Your task to perform on an android device: Add dell alienware to the cart on bestbuy, then select checkout. Image 0: 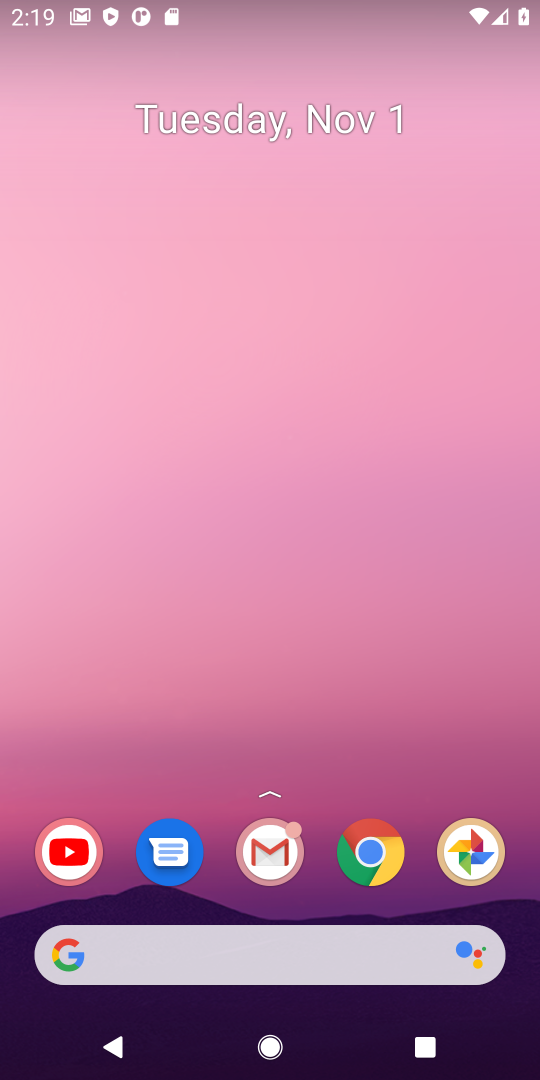
Step 0: click (212, 979)
Your task to perform on an android device: Add dell alienware to the cart on bestbuy, then select checkout. Image 1: 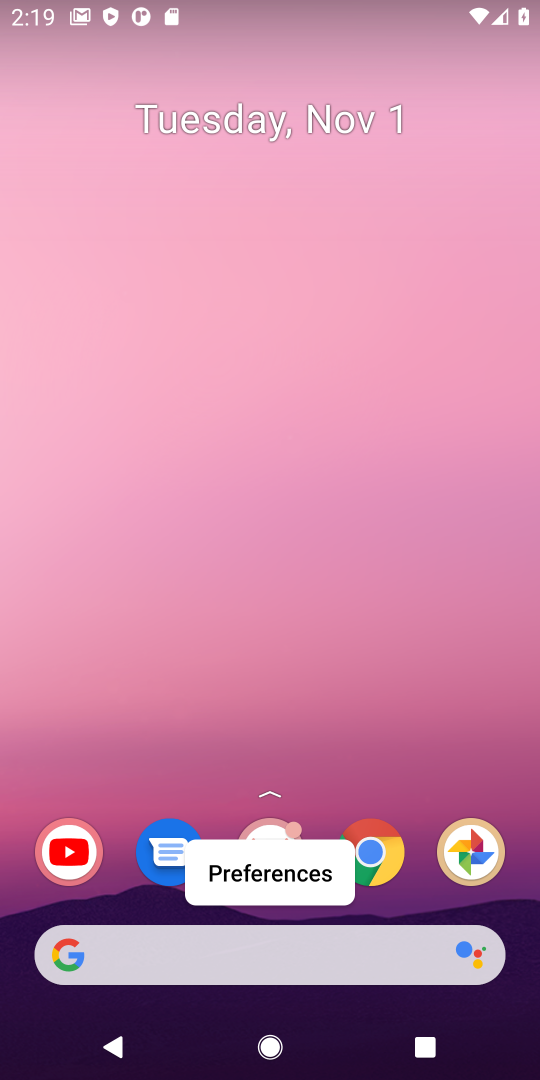
Step 1: click (215, 972)
Your task to perform on an android device: Add dell alienware to the cart on bestbuy, then select checkout. Image 2: 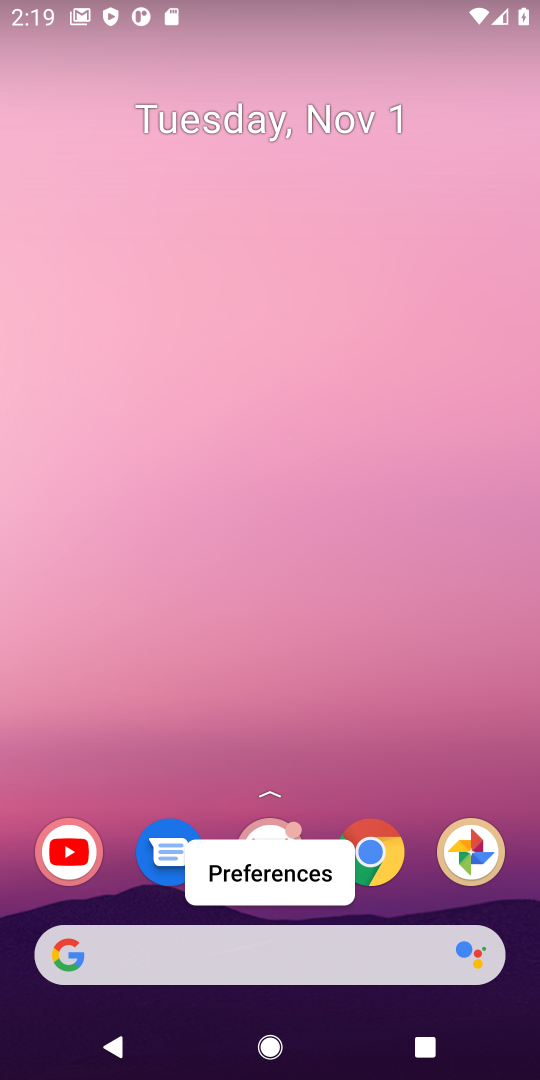
Step 2: click (212, 964)
Your task to perform on an android device: Add dell alienware to the cart on bestbuy, then select checkout. Image 3: 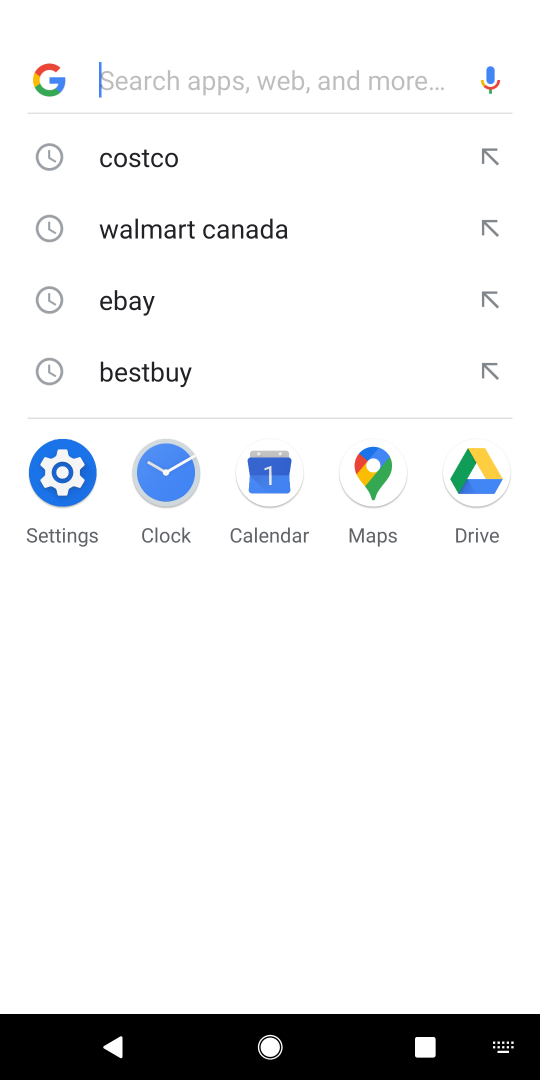
Step 3: type "bestbuy"
Your task to perform on an android device: Add dell alienware to the cart on bestbuy, then select checkout. Image 4: 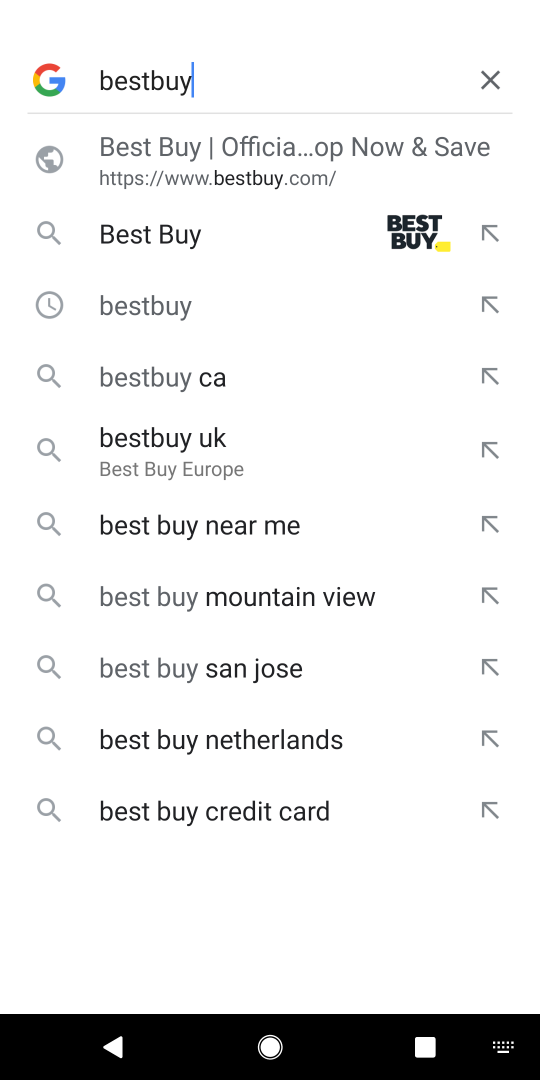
Step 4: type ""
Your task to perform on an android device: Add dell alienware to the cart on bestbuy, then select checkout. Image 5: 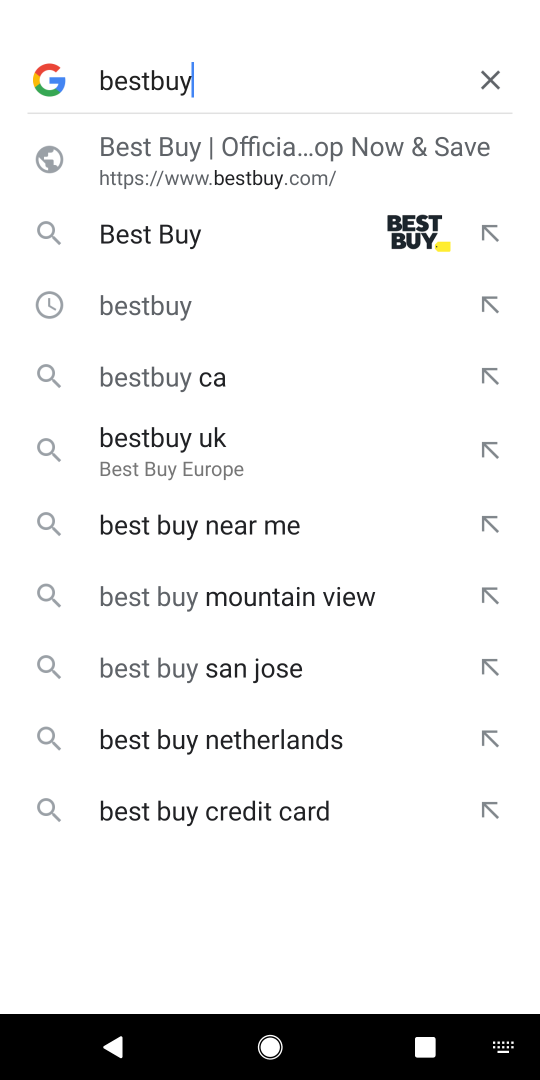
Step 5: click (179, 163)
Your task to perform on an android device: Add dell alienware to the cart on bestbuy, then select checkout. Image 6: 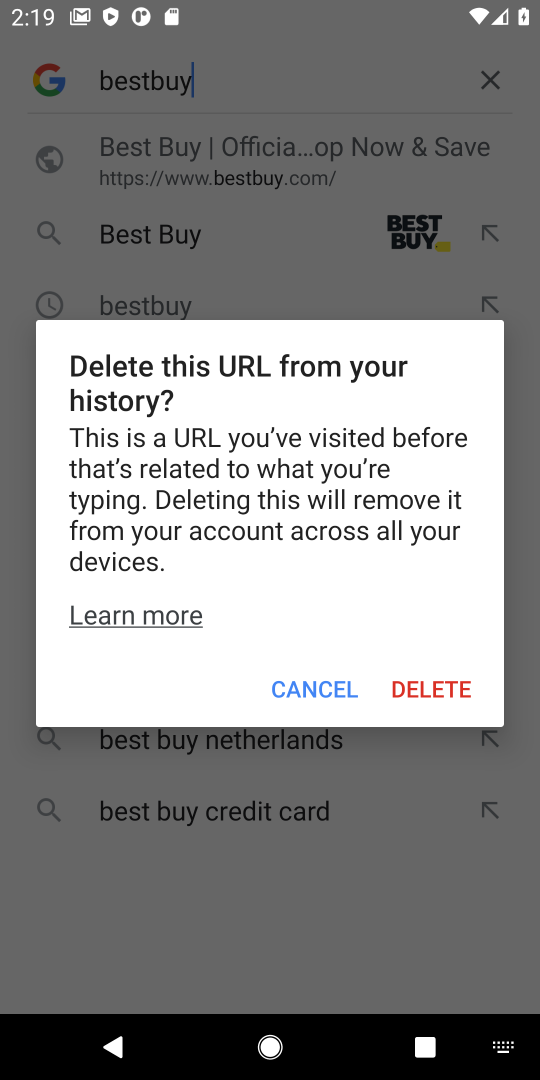
Step 6: click (385, 838)
Your task to perform on an android device: Add dell alienware to the cart on bestbuy, then select checkout. Image 7: 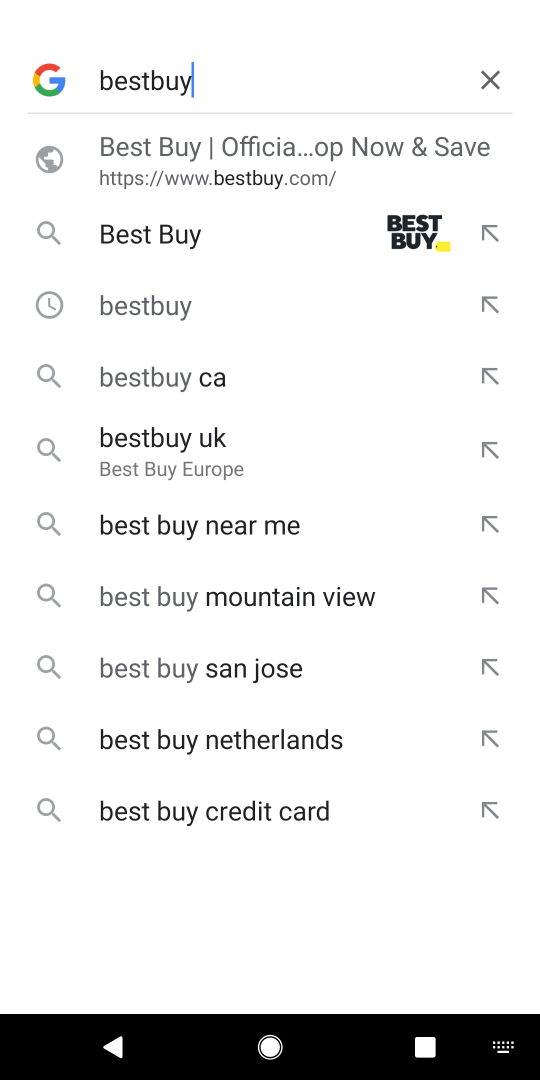
Step 7: click (341, 701)
Your task to perform on an android device: Add dell alienware to the cart on bestbuy, then select checkout. Image 8: 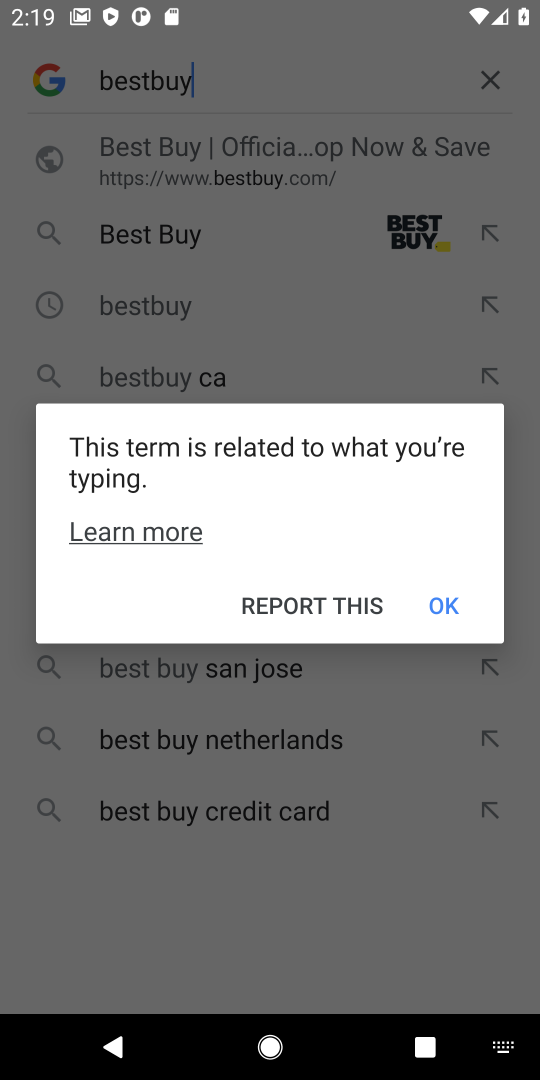
Step 8: click (238, 184)
Your task to perform on an android device: Add dell alienware to the cart on bestbuy, then select checkout. Image 9: 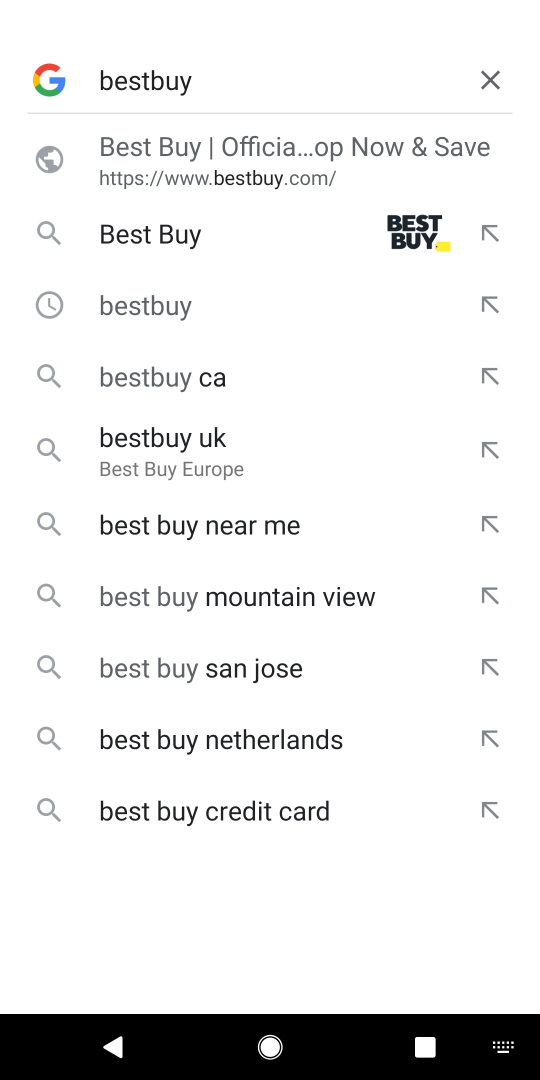
Step 9: click (291, 615)
Your task to perform on an android device: Add dell alienware to the cart on bestbuy, then select checkout. Image 10: 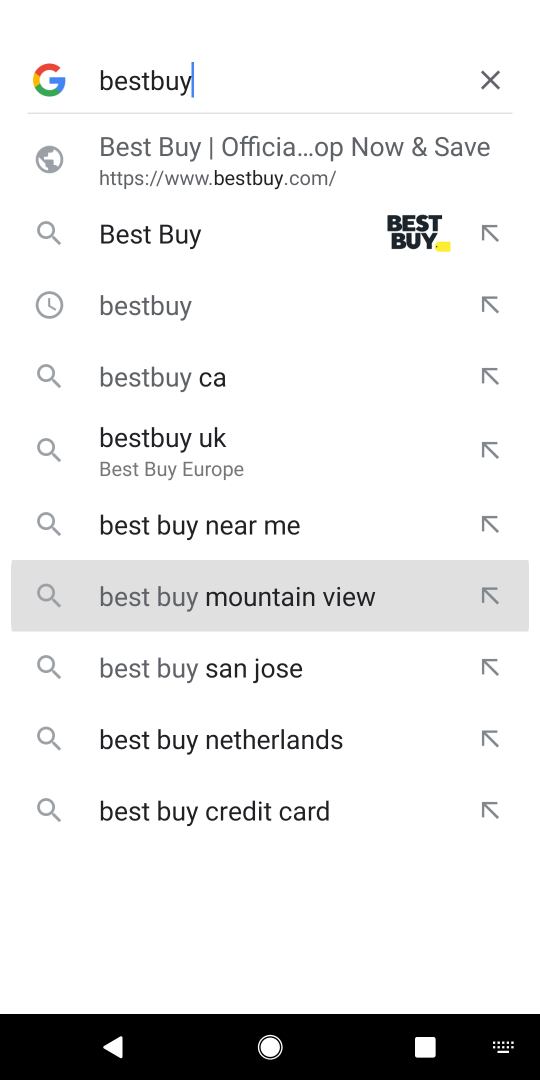
Step 10: click (247, 175)
Your task to perform on an android device: Add dell alienware to the cart on bestbuy, then select checkout. Image 11: 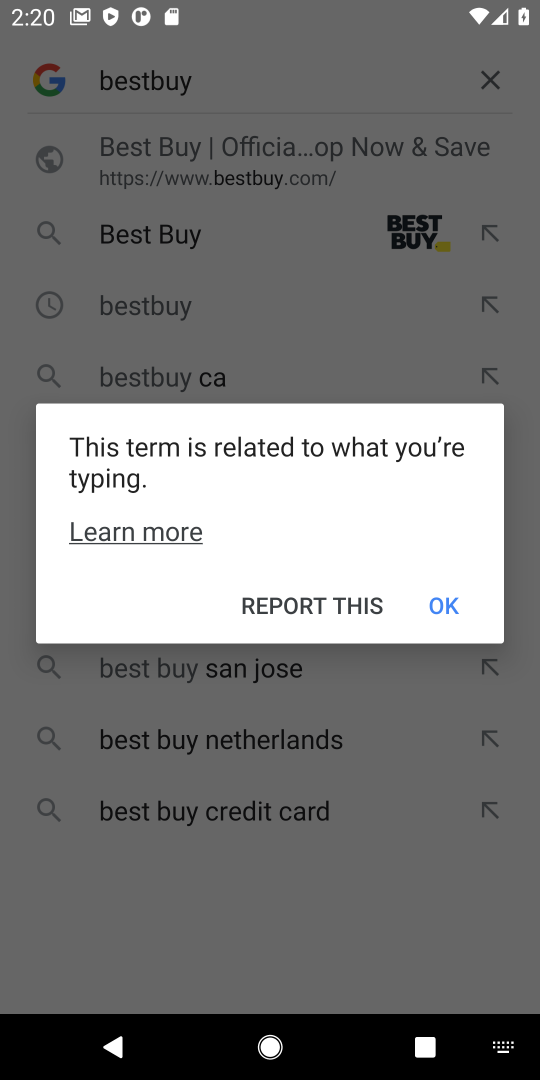
Step 11: click (247, 175)
Your task to perform on an android device: Add dell alienware to the cart on bestbuy, then select checkout. Image 12: 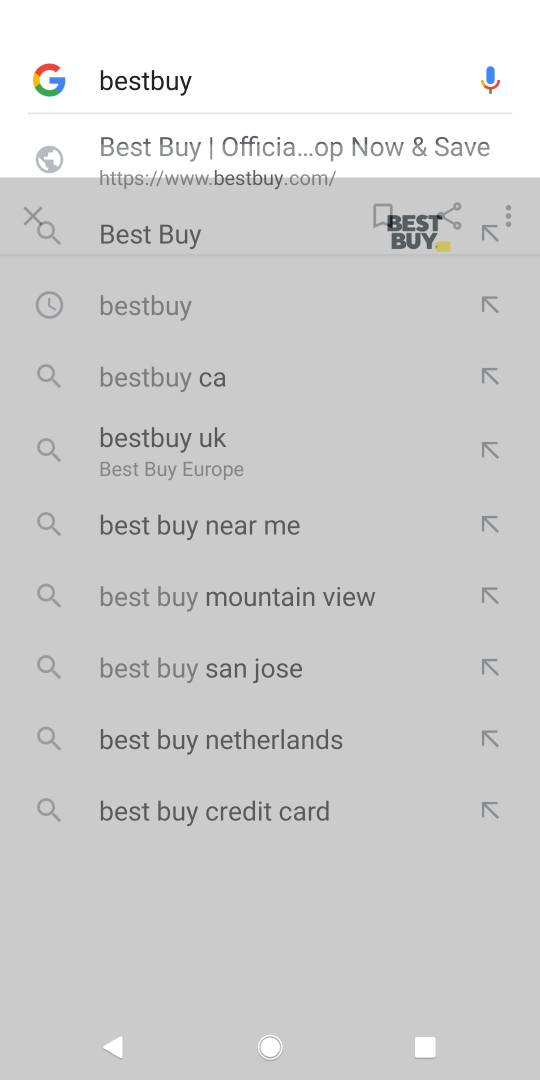
Step 12: click (331, 614)
Your task to perform on an android device: Add dell alienware to the cart on bestbuy, then select checkout. Image 13: 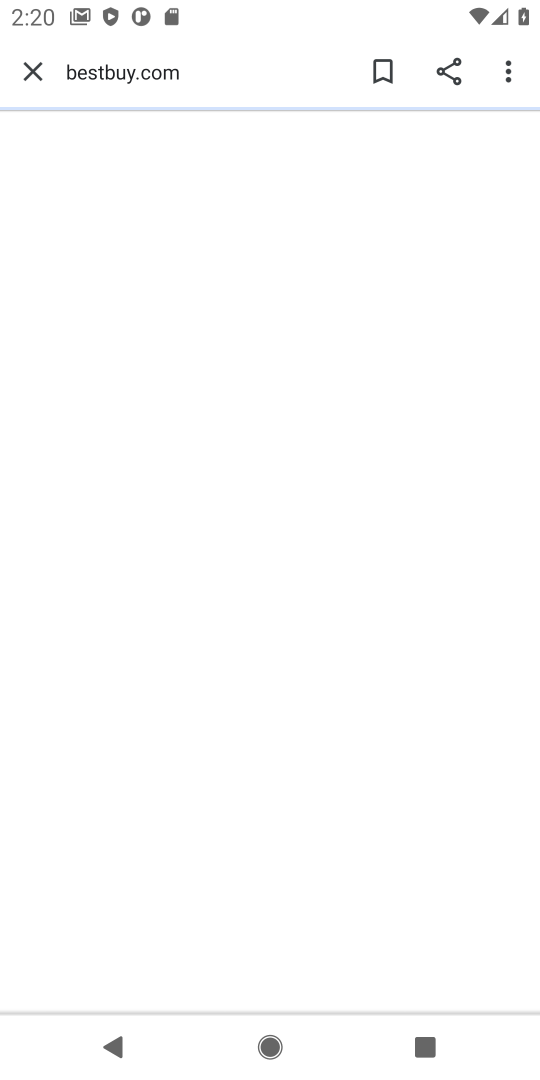
Step 13: click (320, 192)
Your task to perform on an android device: Add dell alienware to the cart on bestbuy, then select checkout. Image 14: 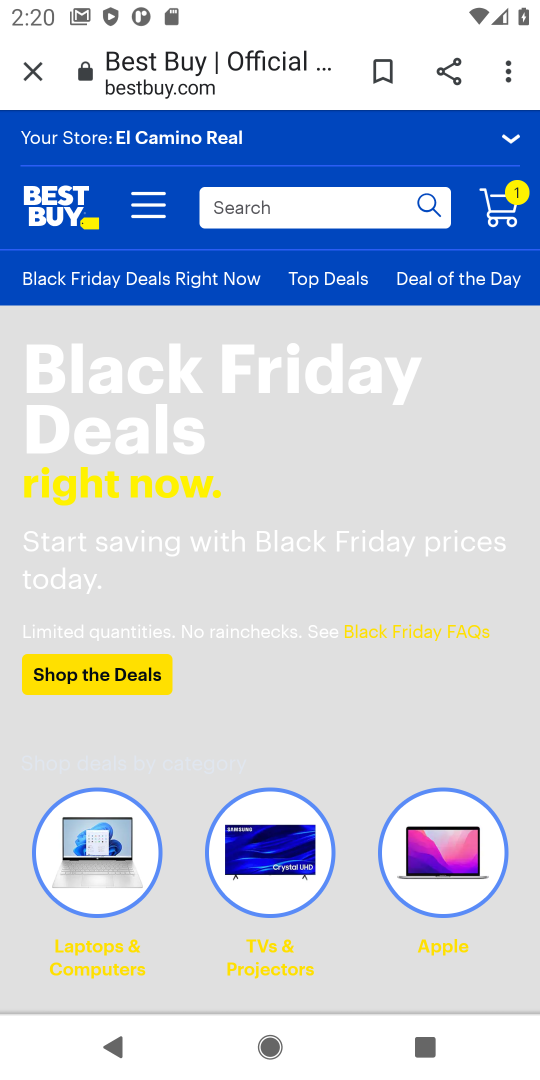
Step 14: click (271, 216)
Your task to perform on an android device: Add dell alienware to the cart on bestbuy, then select checkout. Image 15: 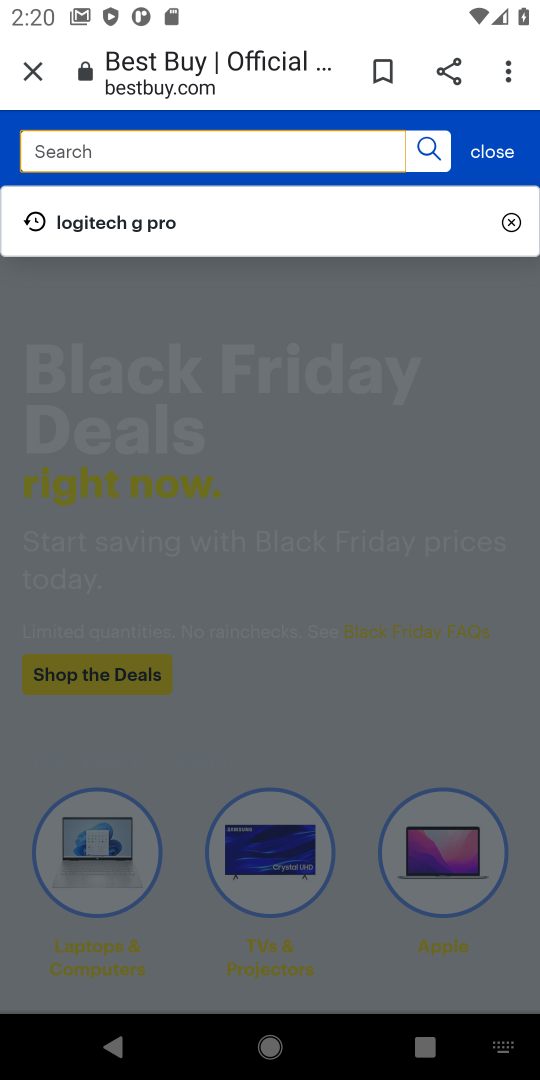
Step 15: click (285, 725)
Your task to perform on an android device: Add dell alienware to the cart on bestbuy, then select checkout. Image 16: 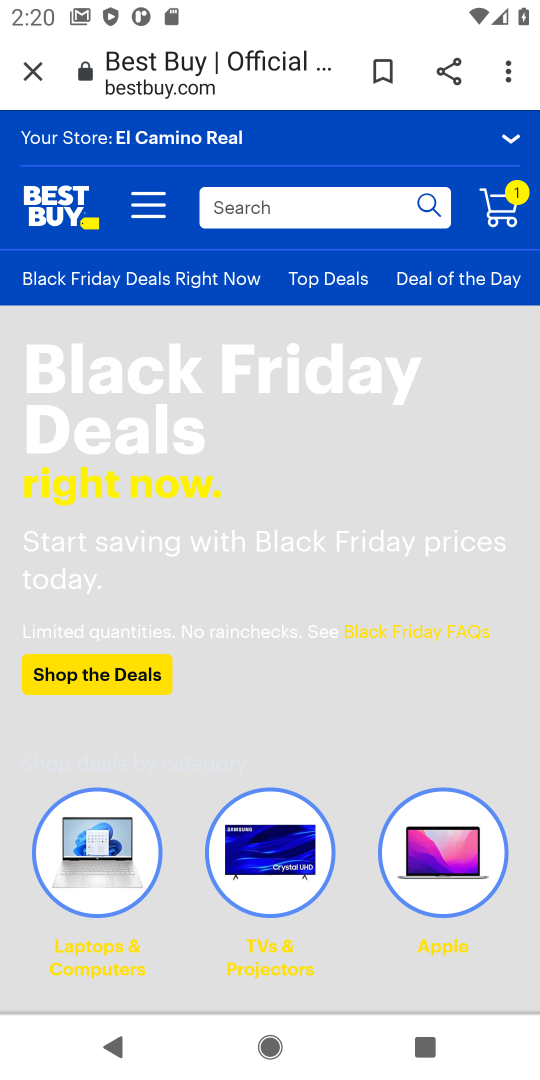
Step 16: type "dell alienware"
Your task to perform on an android device: Add dell alienware to the cart on bestbuy, then select checkout. Image 17: 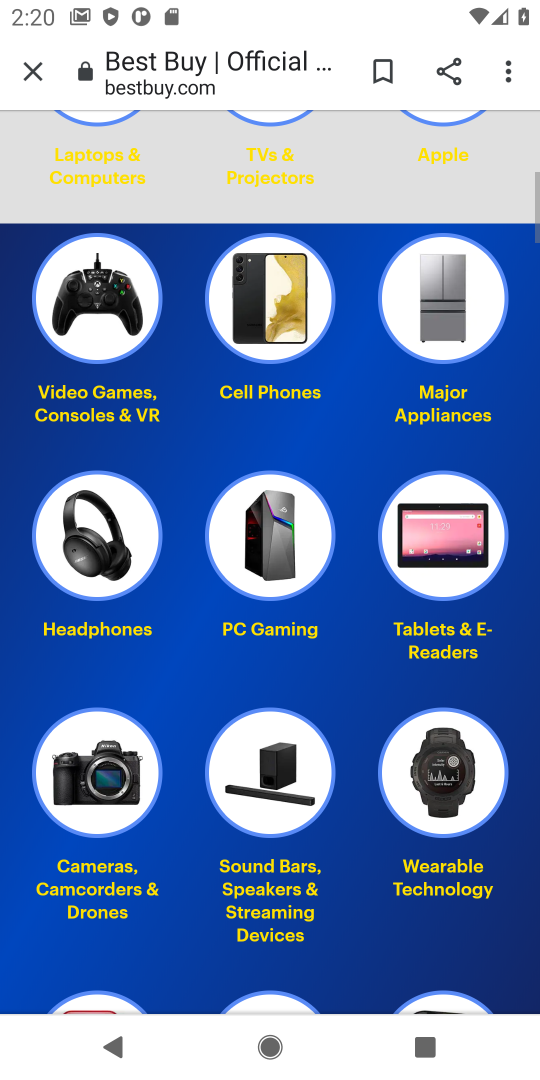
Step 17: type ""
Your task to perform on an android device: Add dell alienware to the cart on bestbuy, then select checkout. Image 18: 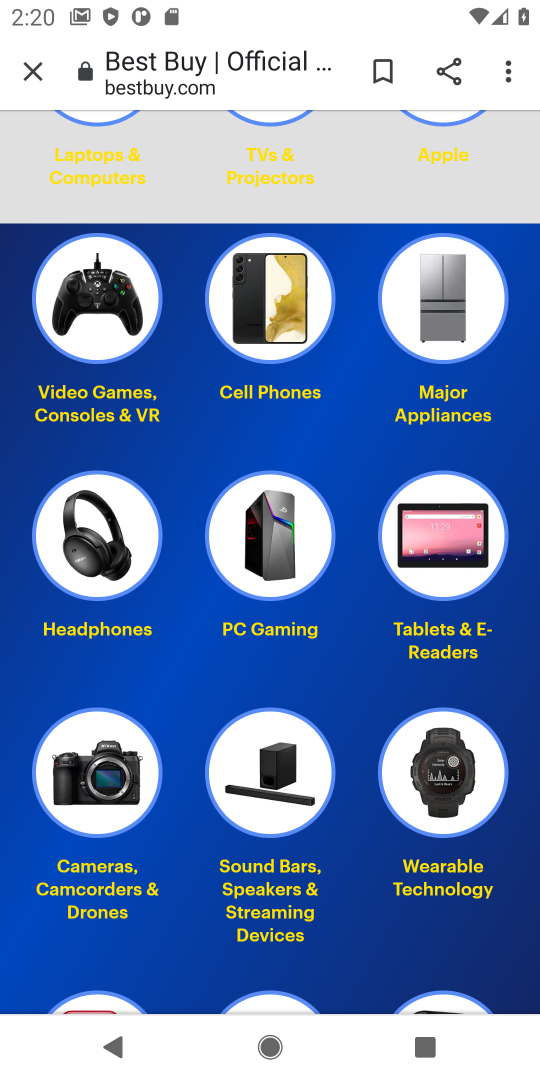
Step 18: drag from (189, 536) to (174, 968)
Your task to perform on an android device: Add dell alienware to the cart on bestbuy, then select checkout. Image 19: 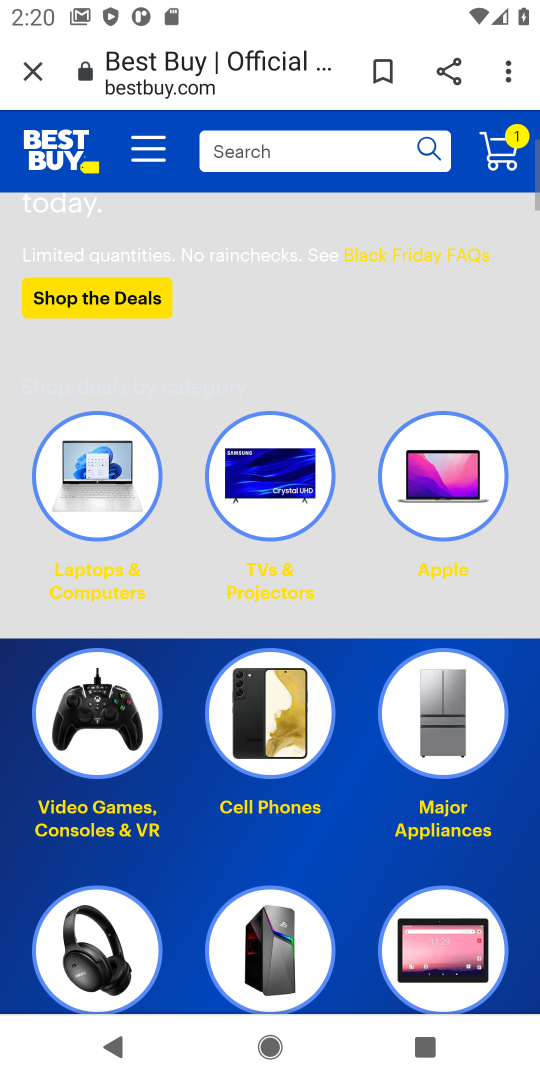
Step 19: drag from (162, 721) to (269, 151)
Your task to perform on an android device: Add dell alienware to the cart on bestbuy, then select checkout. Image 20: 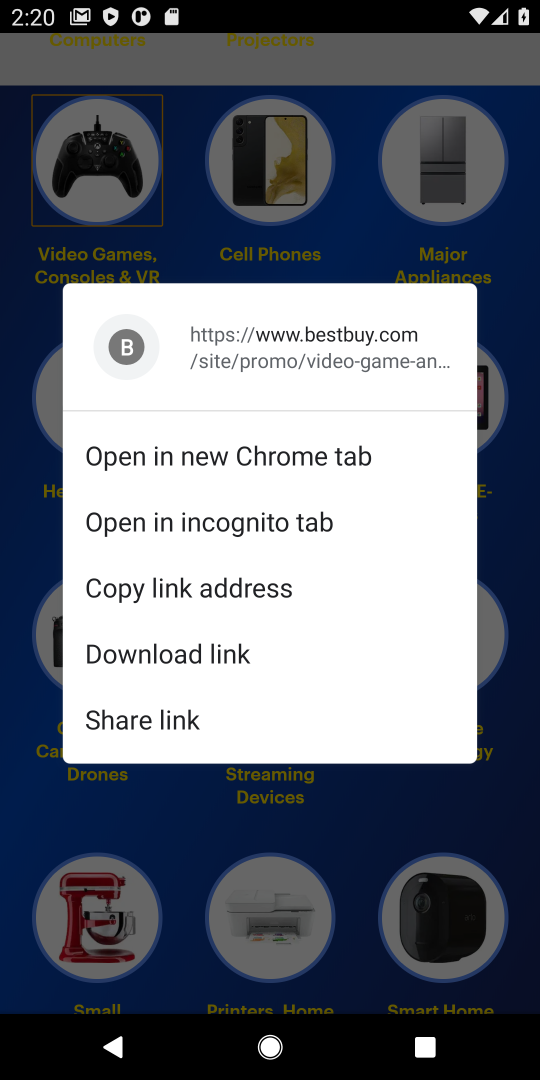
Step 20: click (523, 540)
Your task to perform on an android device: Add dell alienware to the cart on bestbuy, then select checkout. Image 21: 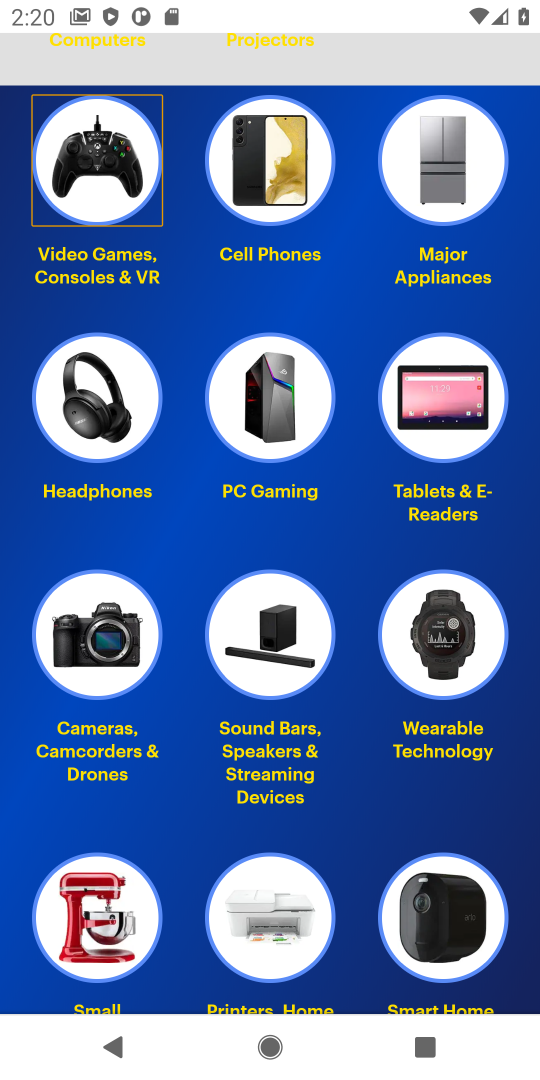
Step 21: drag from (203, 314) to (168, 936)
Your task to perform on an android device: Add dell alienware to the cart on bestbuy, then select checkout. Image 22: 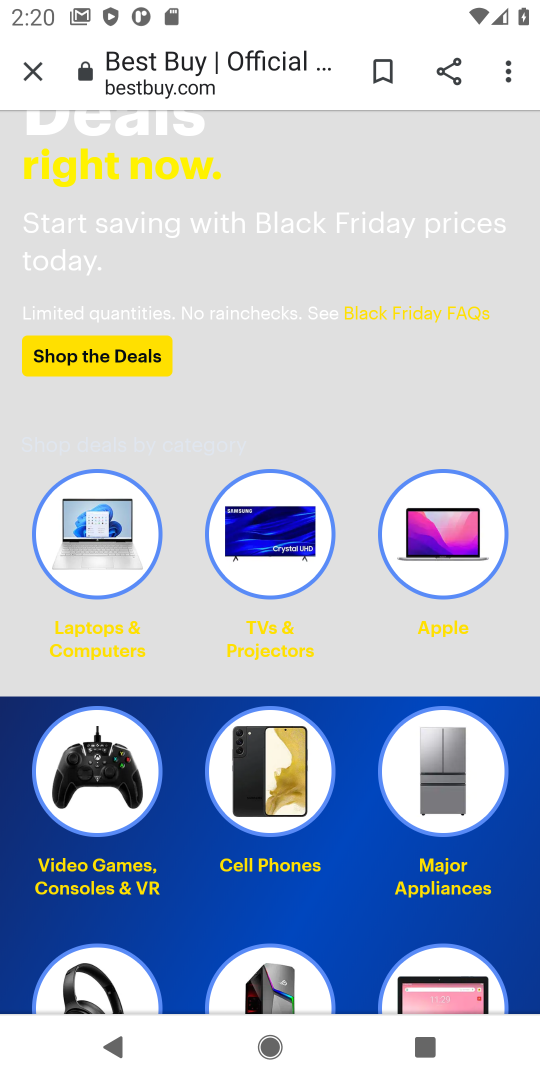
Step 22: drag from (245, 158) to (247, 833)
Your task to perform on an android device: Add dell alienware to the cart on bestbuy, then select checkout. Image 23: 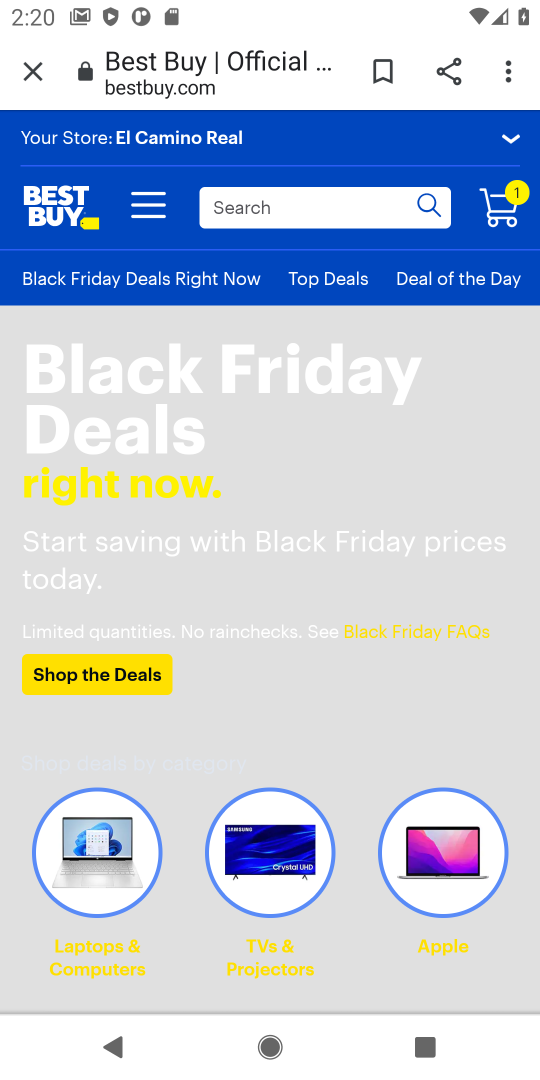
Step 23: click (257, 205)
Your task to perform on an android device: Add dell alienware to the cart on bestbuy, then select checkout. Image 24: 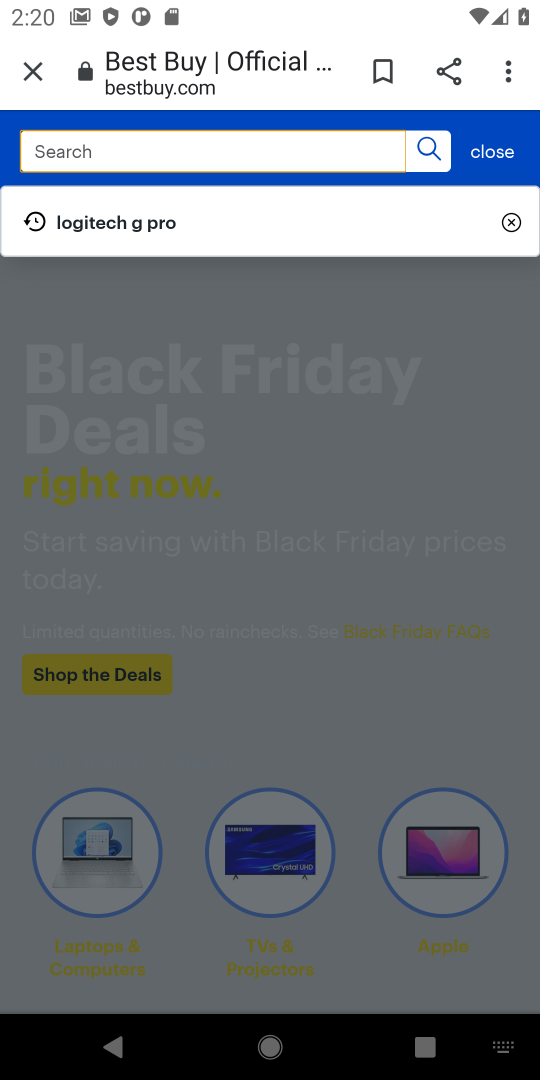
Step 24: type "dell alienware"
Your task to perform on an android device: Add dell alienware to the cart on bestbuy, then select checkout. Image 25: 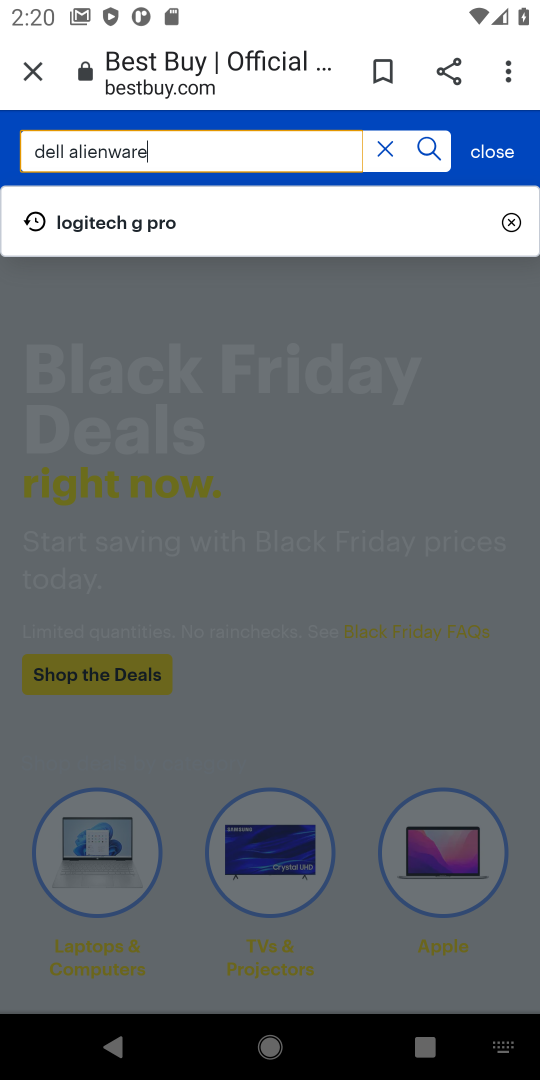
Step 25: type ""
Your task to perform on an android device: Add dell alienware to the cart on bestbuy, then select checkout. Image 26: 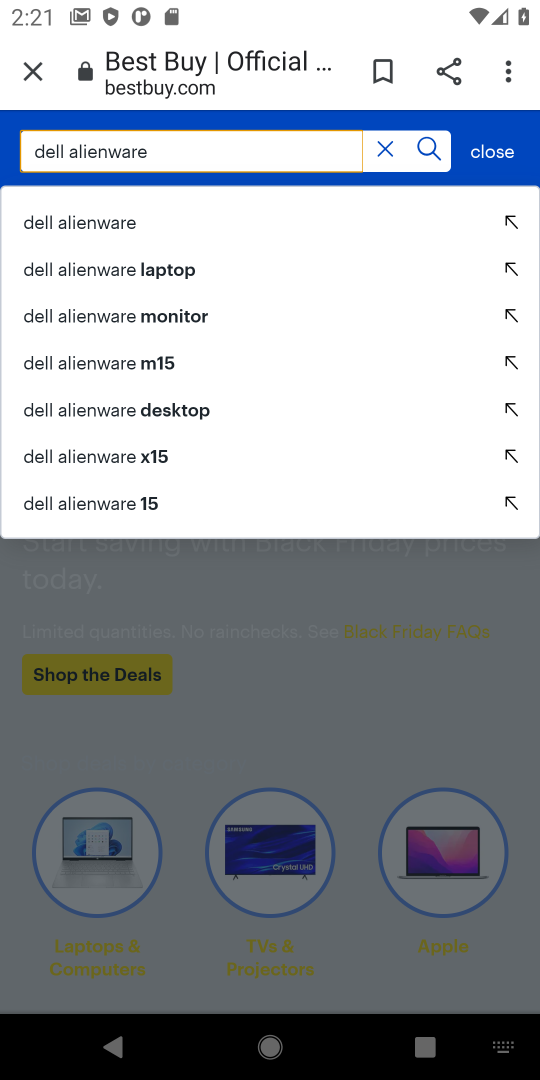
Step 26: press home button
Your task to perform on an android device: Add dell alienware to the cart on bestbuy, then select checkout. Image 27: 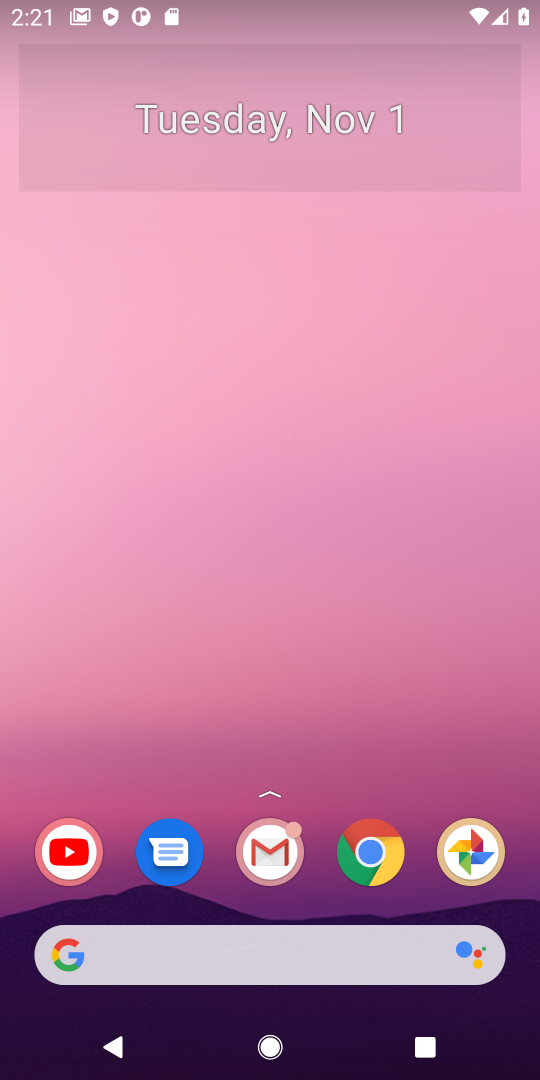
Step 27: click (336, 946)
Your task to perform on an android device: Add dell alienware to the cart on bestbuy, then select checkout. Image 28: 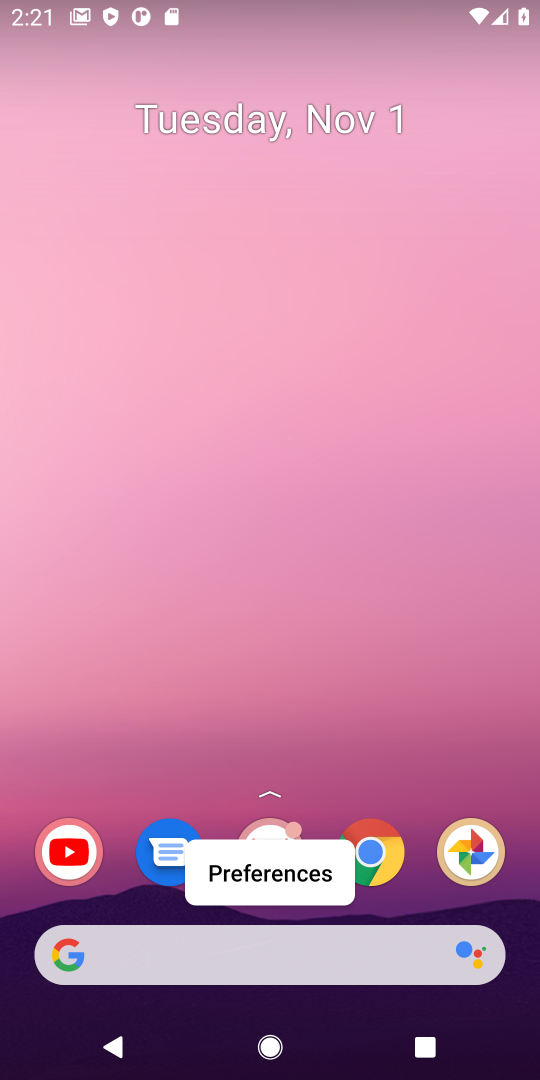
Step 28: click (289, 953)
Your task to perform on an android device: Add dell alienware to the cart on bestbuy, then select checkout. Image 29: 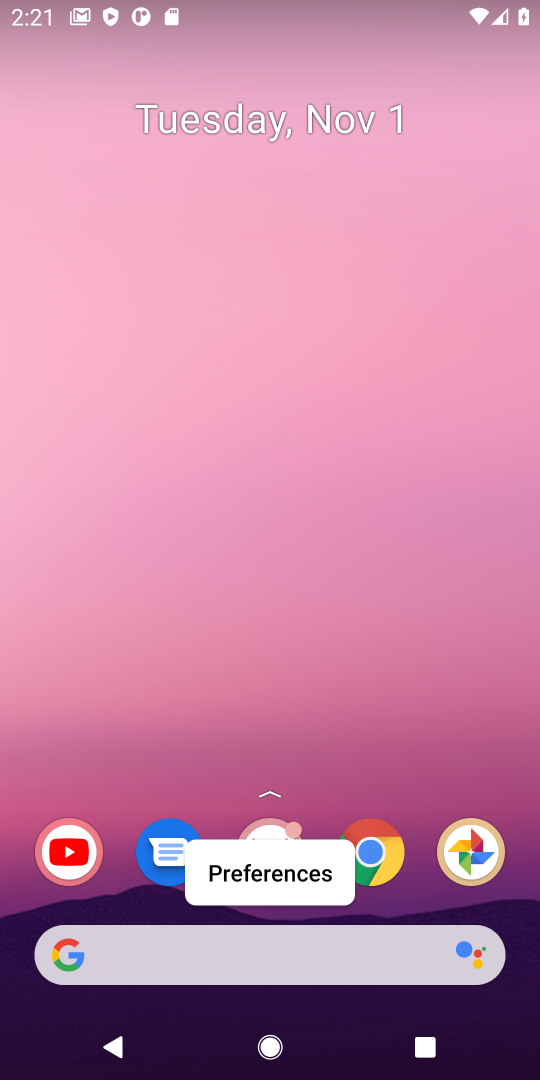
Step 29: click (289, 953)
Your task to perform on an android device: Add dell alienware to the cart on bestbuy, then select checkout. Image 30: 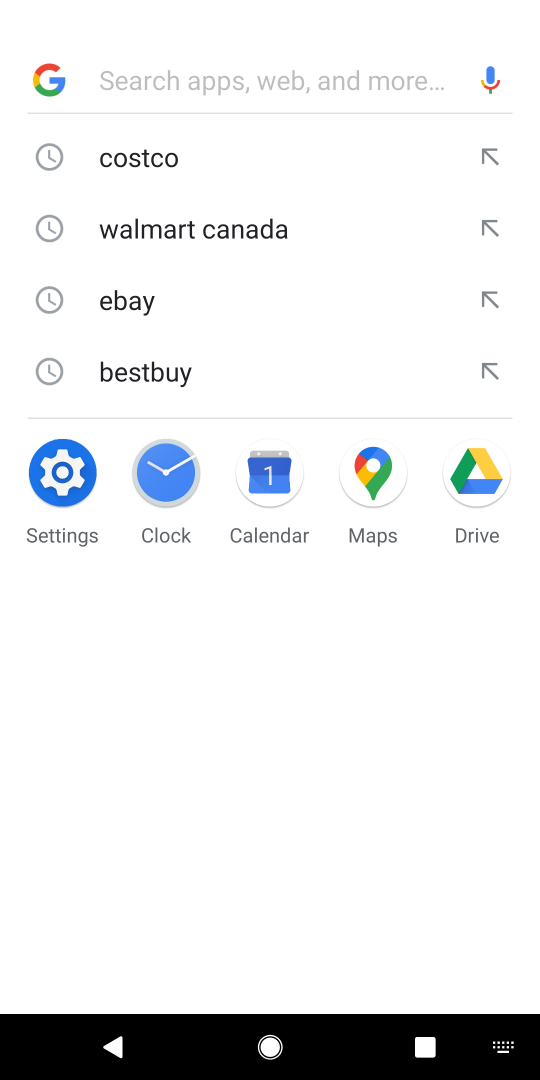
Step 30: type "dell alienware"
Your task to perform on an android device: Add dell alienware to the cart on bestbuy, then select checkout. Image 31: 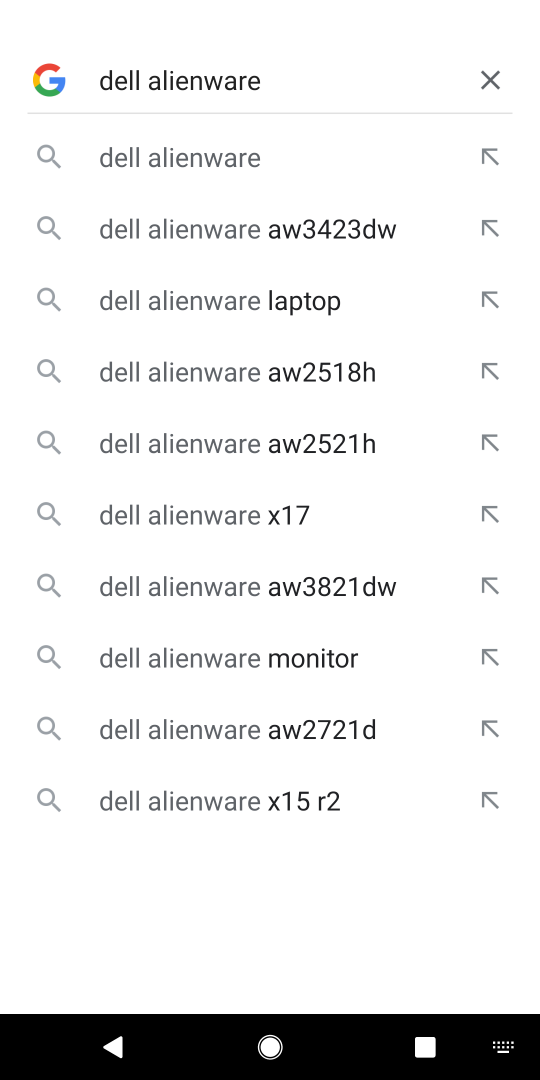
Step 31: type ""
Your task to perform on an android device: Add dell alienware to the cart on bestbuy, then select checkout. Image 32: 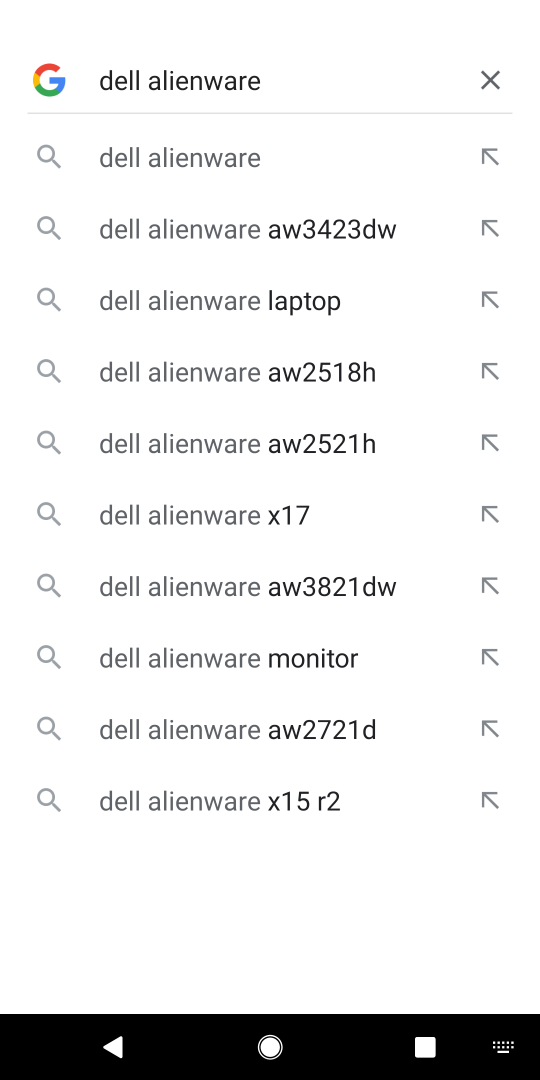
Step 32: type ""
Your task to perform on an android device: Add dell alienware to the cart on bestbuy, then select checkout. Image 33: 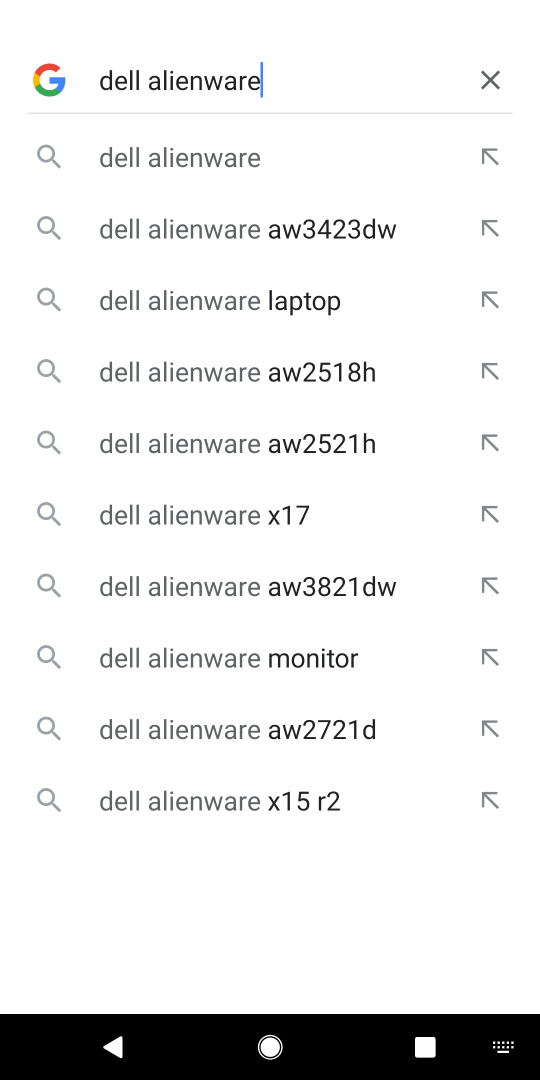
Step 33: press enter
Your task to perform on an android device: Add dell alienware to the cart on bestbuy, then select checkout. Image 34: 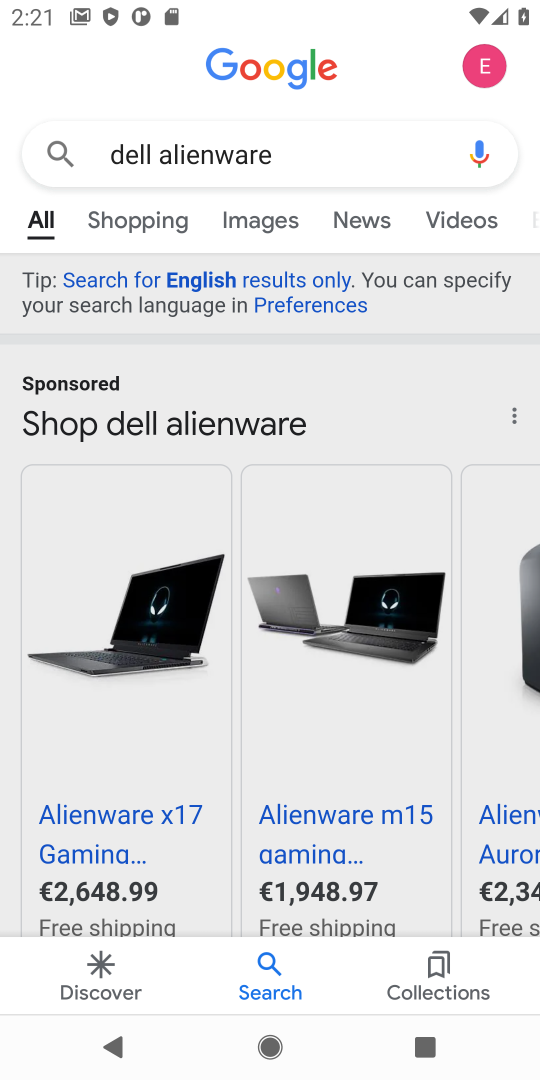
Step 34: drag from (241, 859) to (199, 230)
Your task to perform on an android device: Add dell alienware to the cart on bestbuy, then select checkout. Image 35: 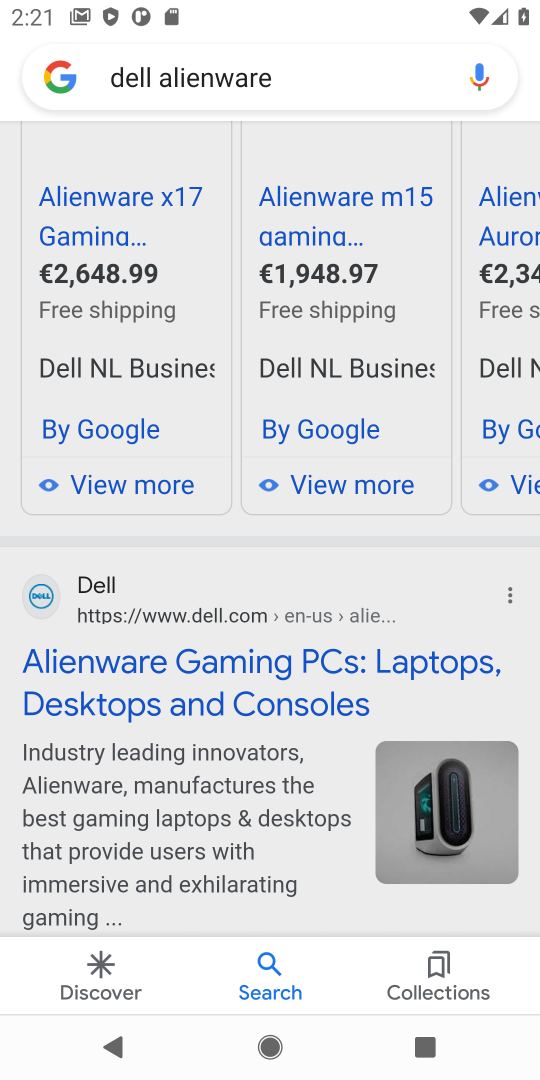
Step 35: click (196, 659)
Your task to perform on an android device: Add dell alienware to the cart on bestbuy, then select checkout. Image 36: 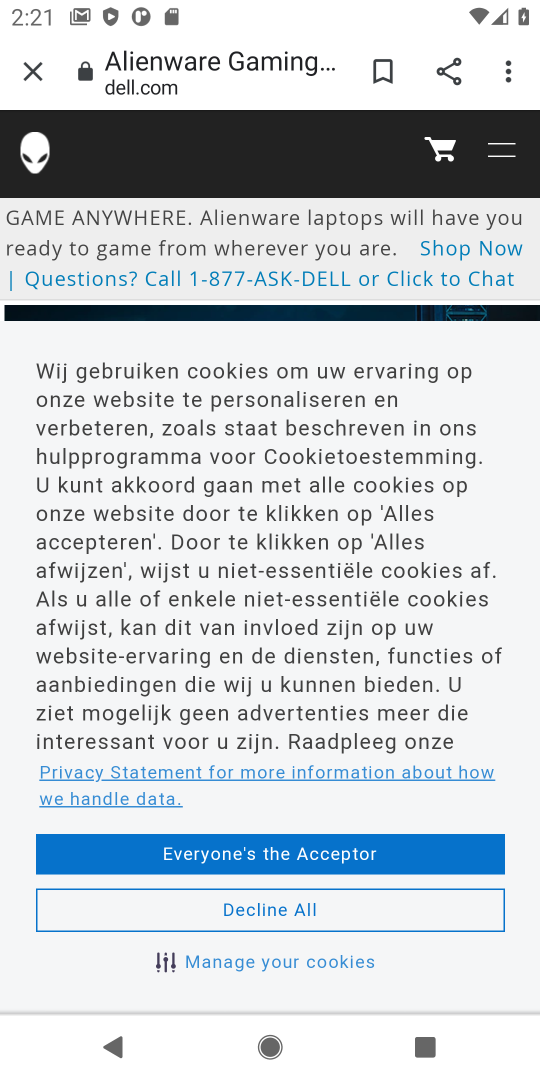
Step 36: click (35, 68)
Your task to perform on an android device: Add dell alienware to the cart on bestbuy, then select checkout. Image 37: 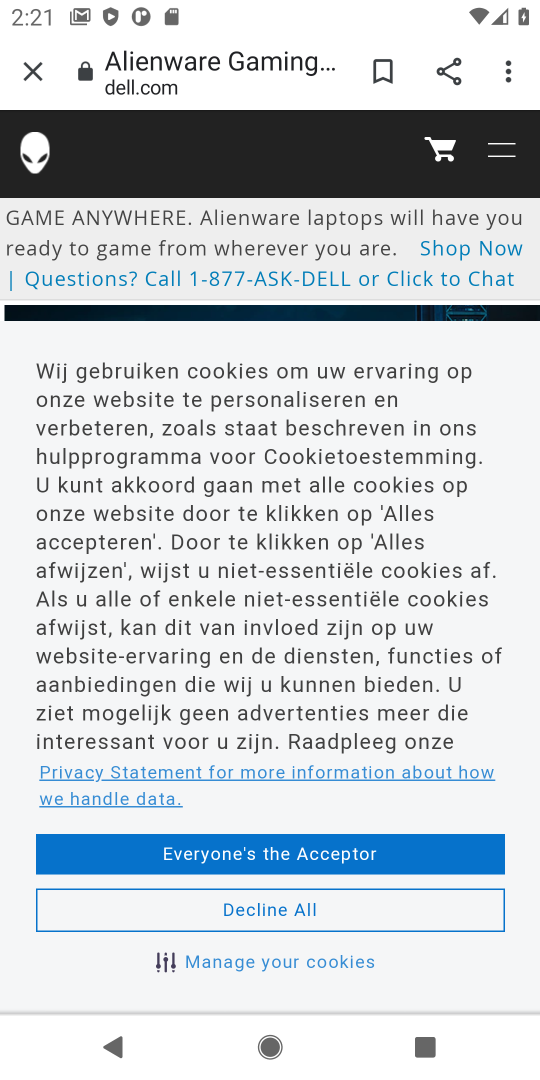
Step 37: click (39, 63)
Your task to perform on an android device: Add dell alienware to the cart on bestbuy, then select checkout. Image 38: 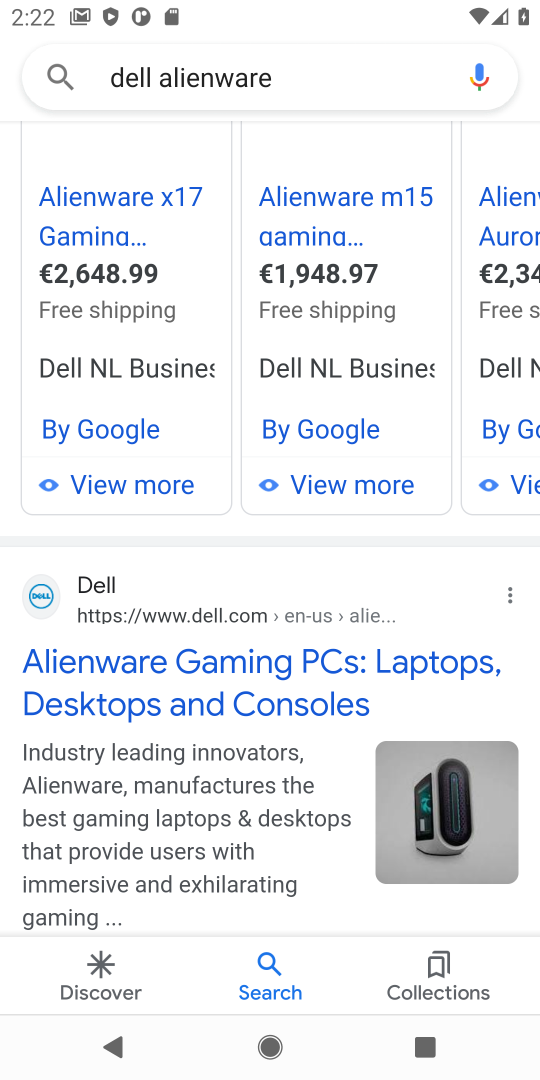
Step 38: click (29, 73)
Your task to perform on an android device: Add dell alienware to the cart on bestbuy, then select checkout. Image 39: 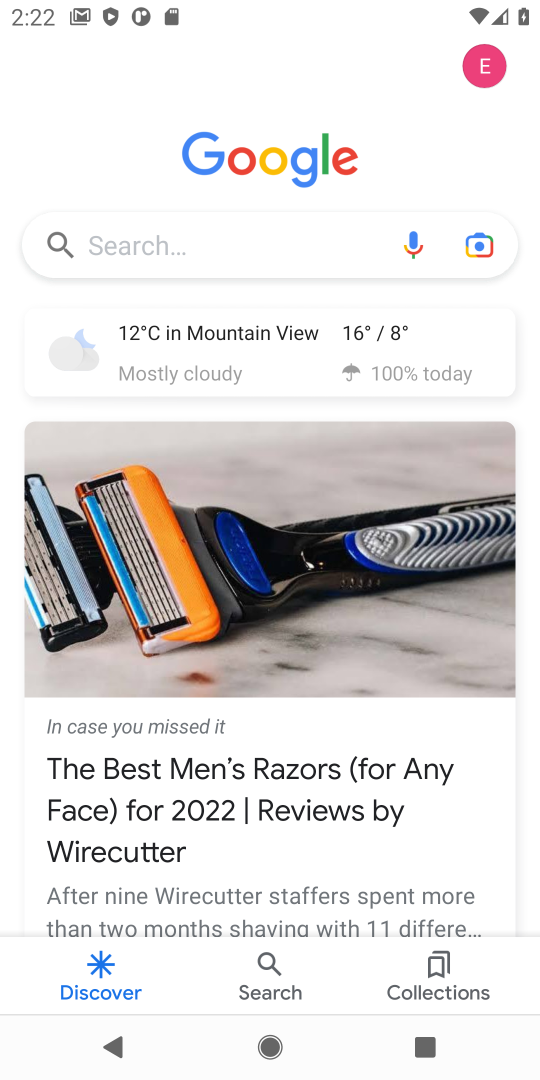
Step 39: task complete